Your task to perform on an android device: What's the weather? Image 0: 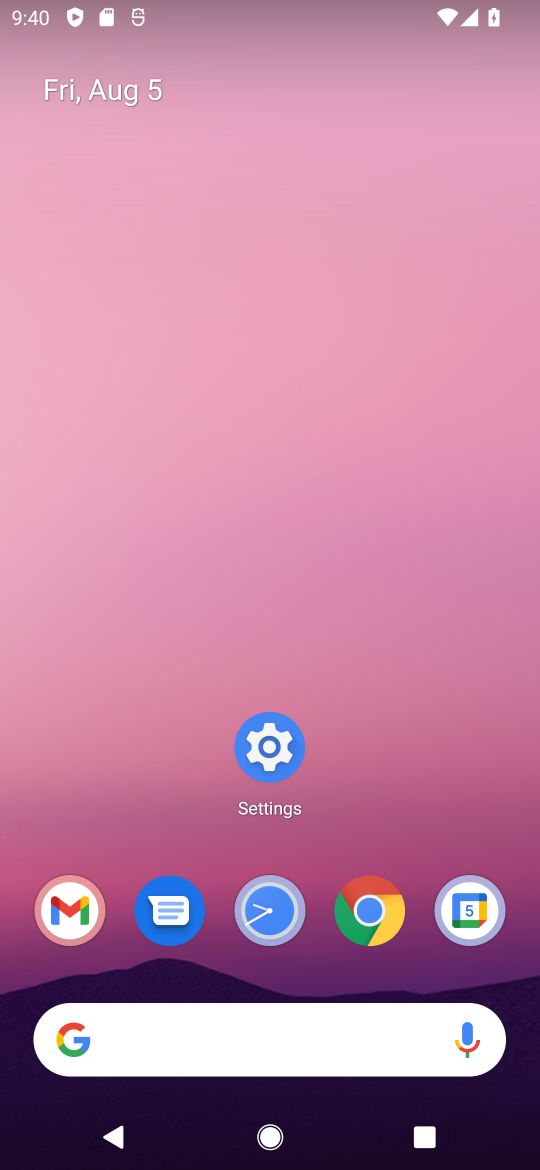
Step 0: click (169, 1031)
Your task to perform on an android device: What's the weather? Image 1: 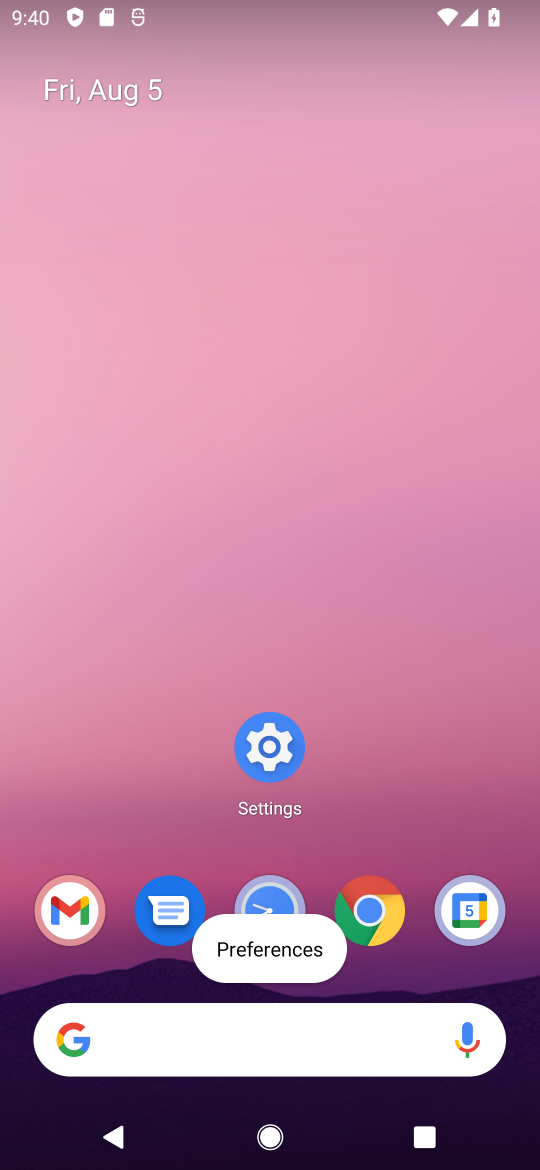
Step 1: click (169, 1031)
Your task to perform on an android device: What's the weather? Image 2: 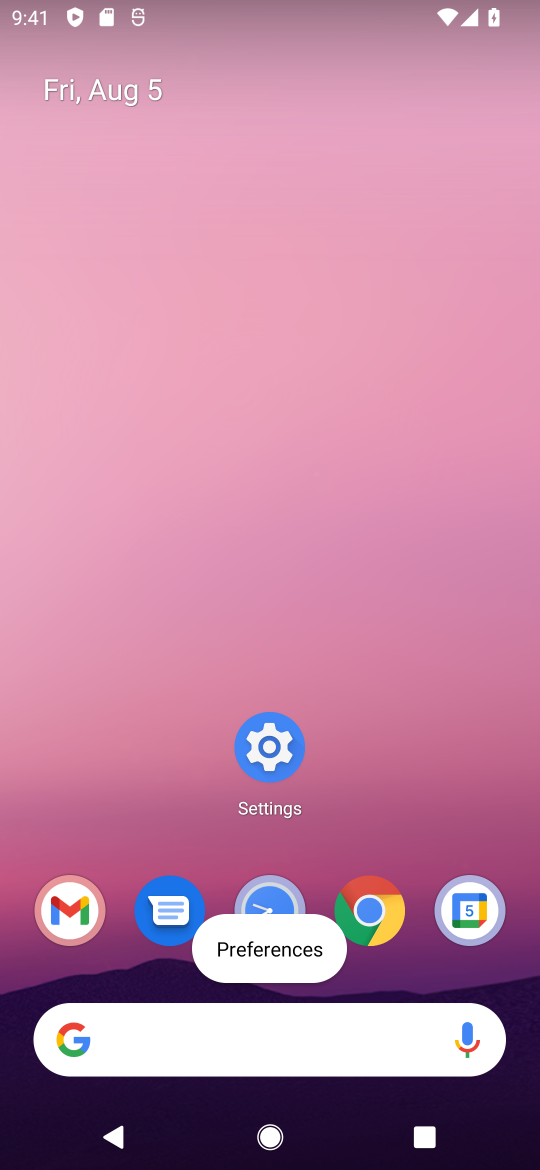
Step 2: click (216, 1060)
Your task to perform on an android device: What's the weather? Image 3: 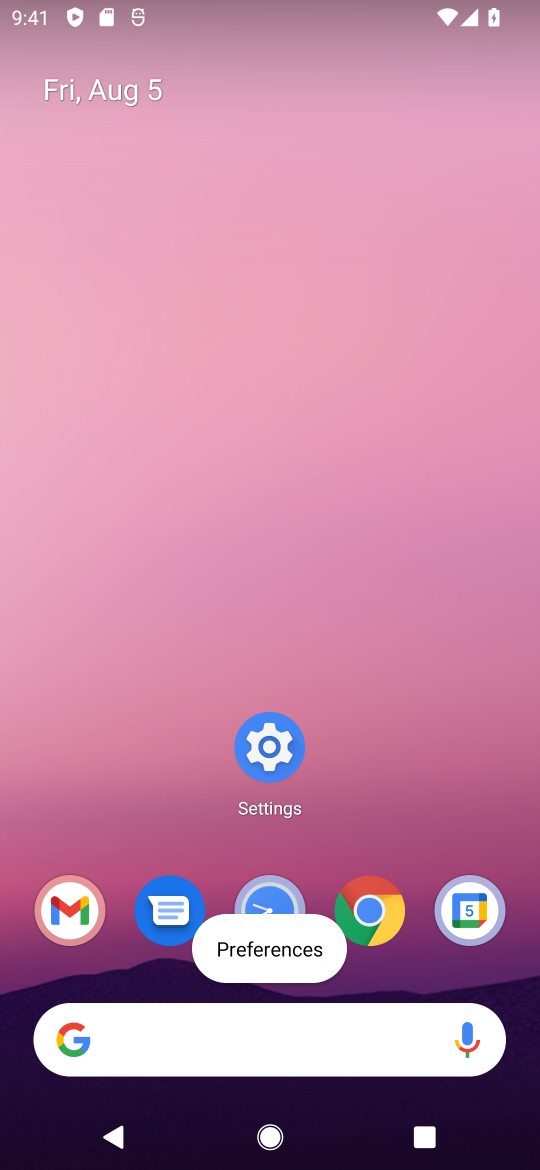
Step 3: click (213, 1038)
Your task to perform on an android device: What's the weather? Image 4: 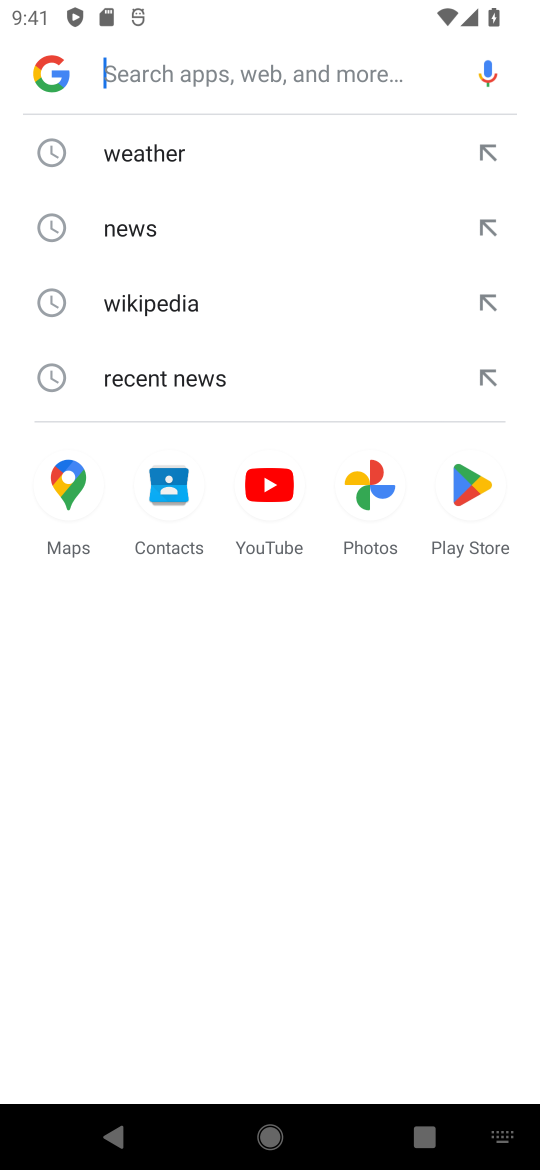
Step 4: click (156, 142)
Your task to perform on an android device: What's the weather? Image 5: 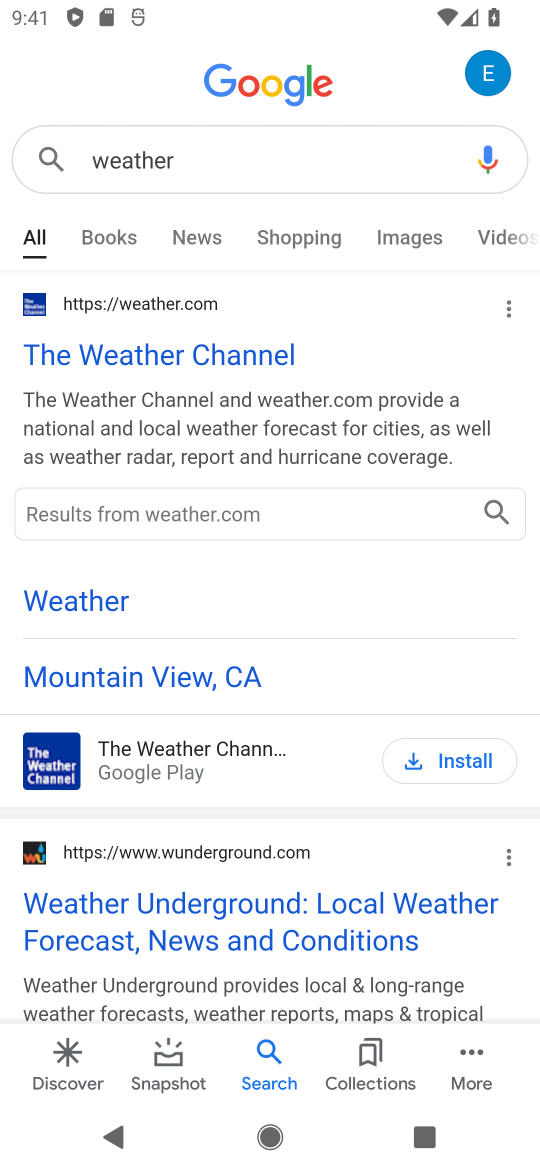
Step 5: click (168, 675)
Your task to perform on an android device: What's the weather? Image 6: 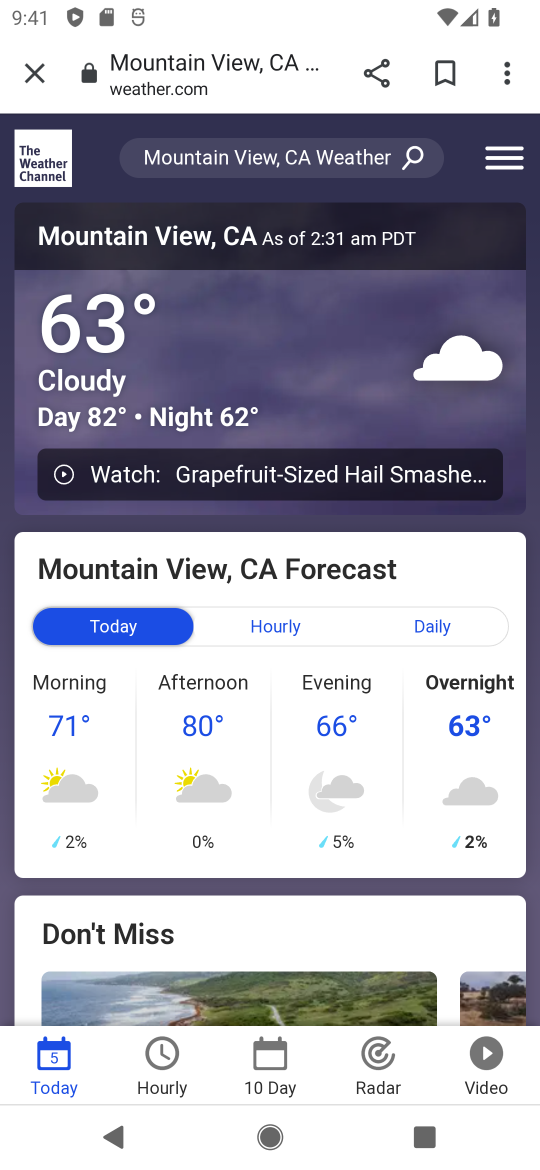
Step 6: task complete